Your task to perform on an android device: Is it going to rain this weekend? Image 0: 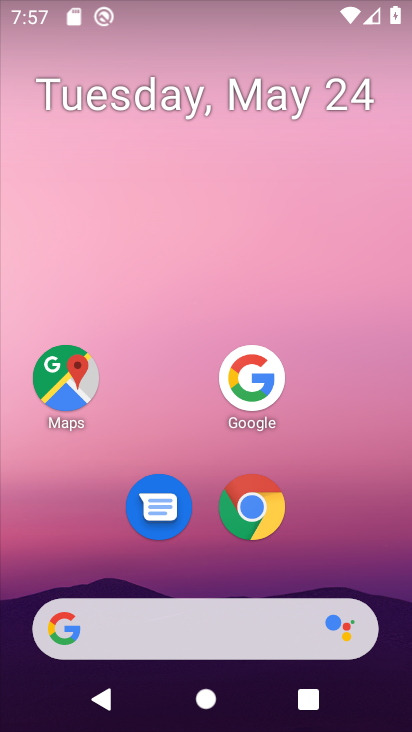
Step 0: press home button
Your task to perform on an android device: Is it going to rain this weekend? Image 1: 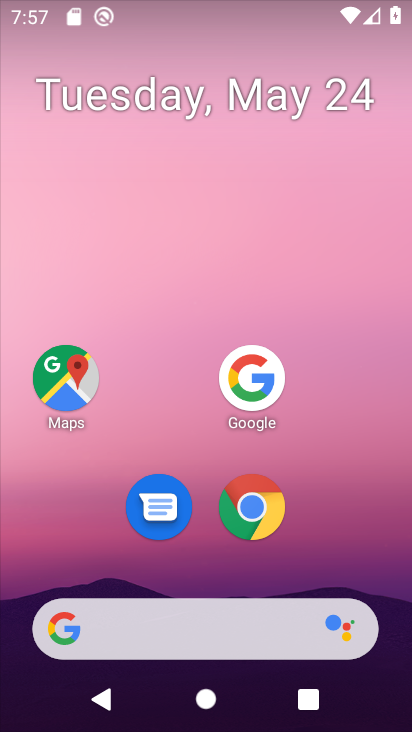
Step 1: click (71, 626)
Your task to perform on an android device: Is it going to rain this weekend? Image 2: 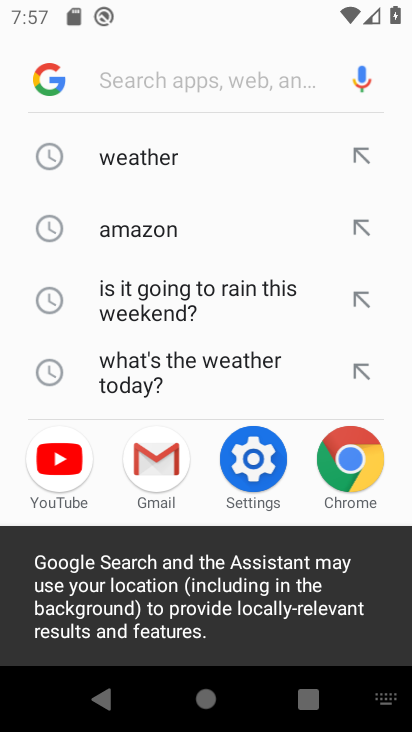
Step 2: click (136, 164)
Your task to perform on an android device: Is it going to rain this weekend? Image 3: 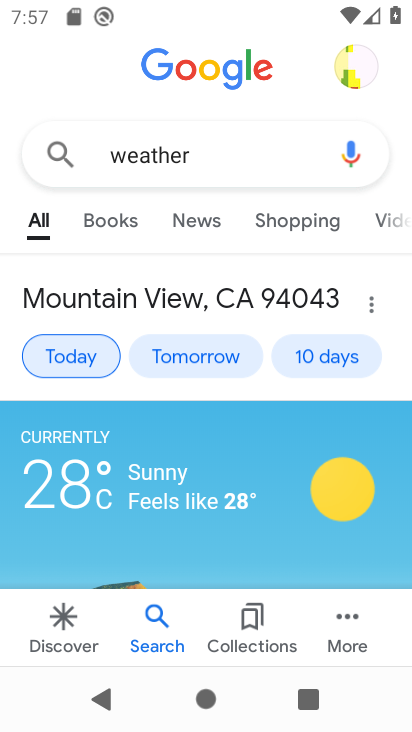
Step 3: click (329, 353)
Your task to perform on an android device: Is it going to rain this weekend? Image 4: 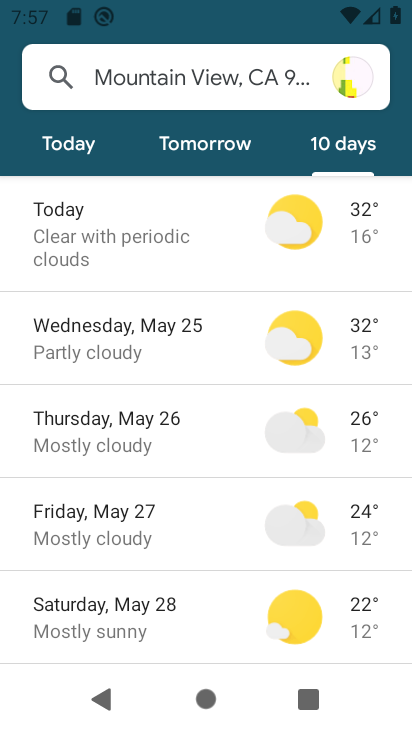
Step 4: click (150, 616)
Your task to perform on an android device: Is it going to rain this weekend? Image 5: 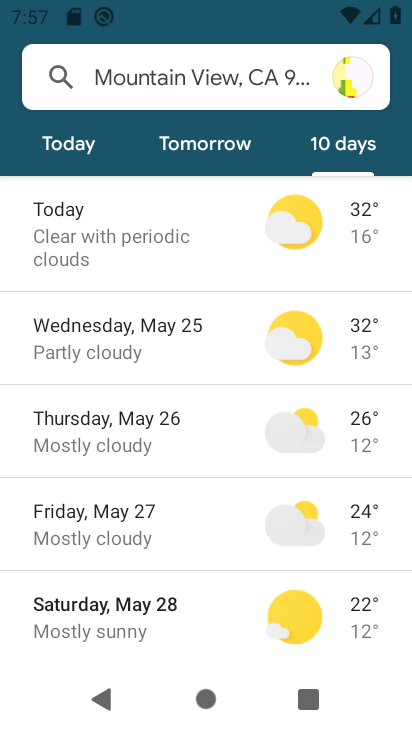
Step 5: task complete